Your task to perform on an android device: turn off location history Image 0: 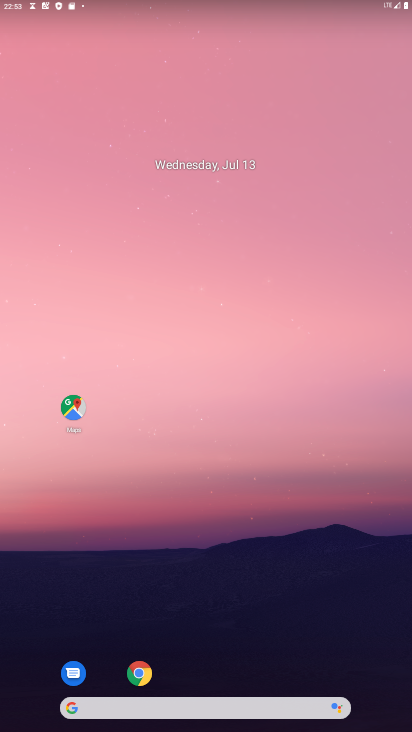
Step 0: drag from (213, 562) to (261, 168)
Your task to perform on an android device: turn off location history Image 1: 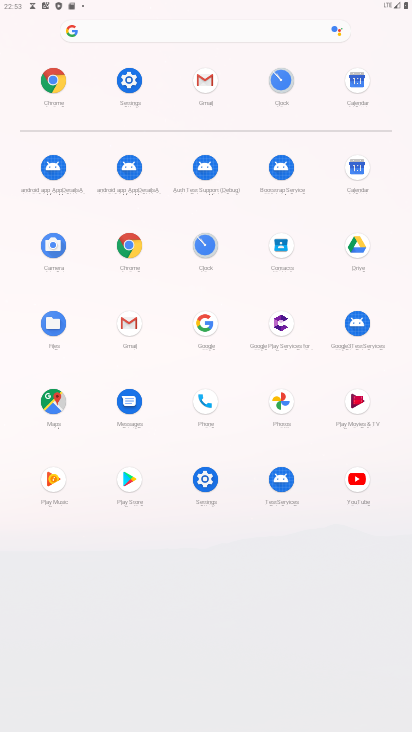
Step 1: click (200, 466)
Your task to perform on an android device: turn off location history Image 2: 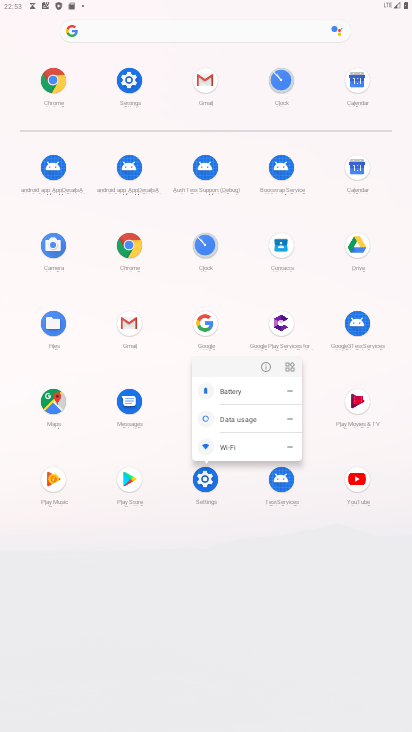
Step 2: click (265, 364)
Your task to perform on an android device: turn off location history Image 3: 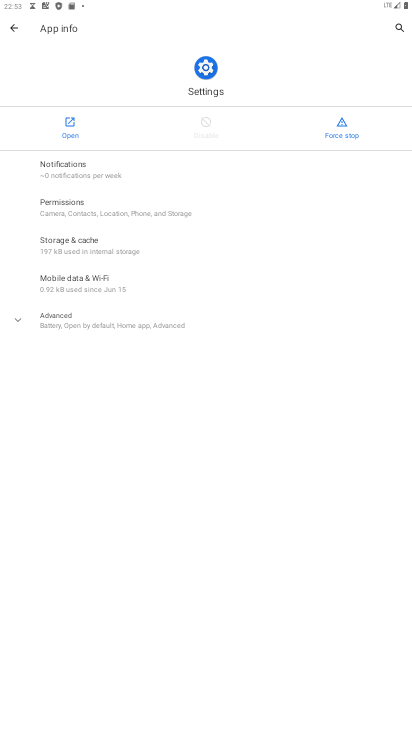
Step 3: click (70, 129)
Your task to perform on an android device: turn off location history Image 4: 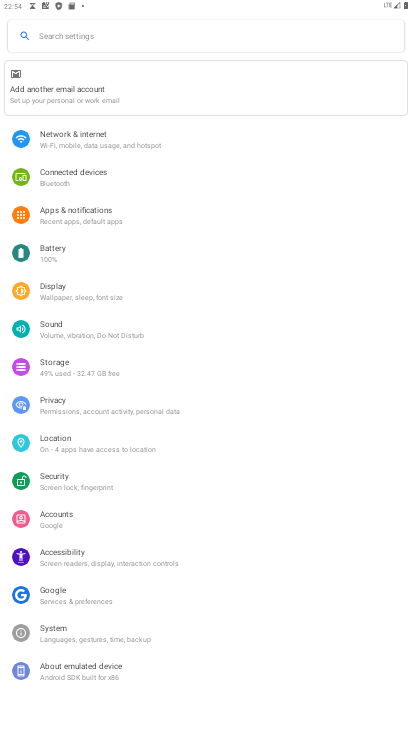
Step 4: click (239, 291)
Your task to perform on an android device: turn off location history Image 5: 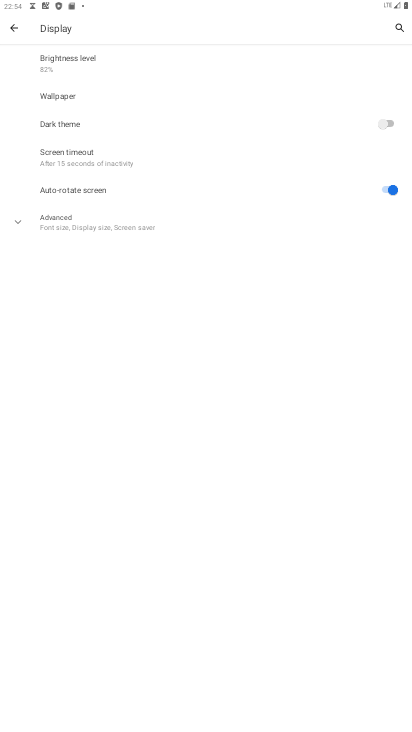
Step 5: click (17, 31)
Your task to perform on an android device: turn off location history Image 6: 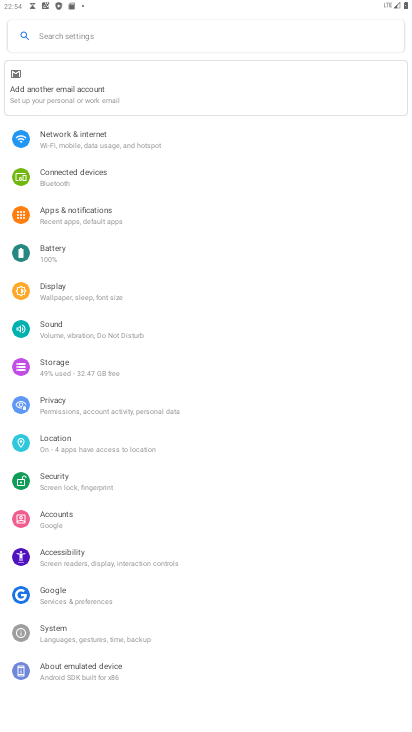
Step 6: click (76, 440)
Your task to perform on an android device: turn off location history Image 7: 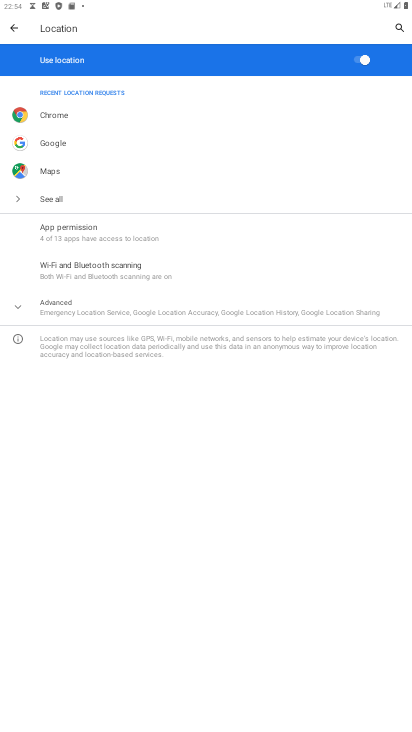
Step 7: click (93, 308)
Your task to perform on an android device: turn off location history Image 8: 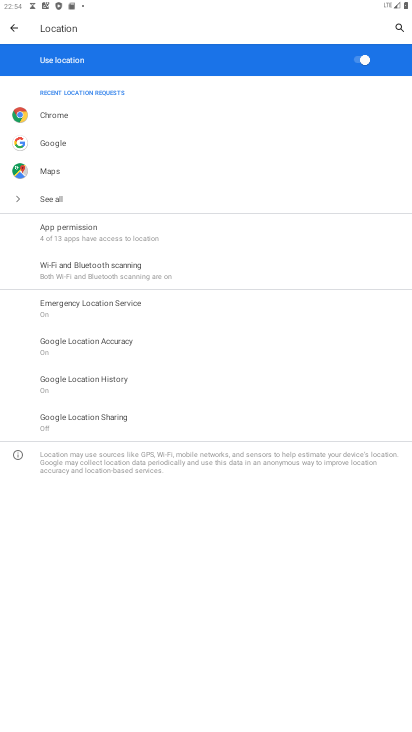
Step 8: click (123, 378)
Your task to perform on an android device: turn off location history Image 9: 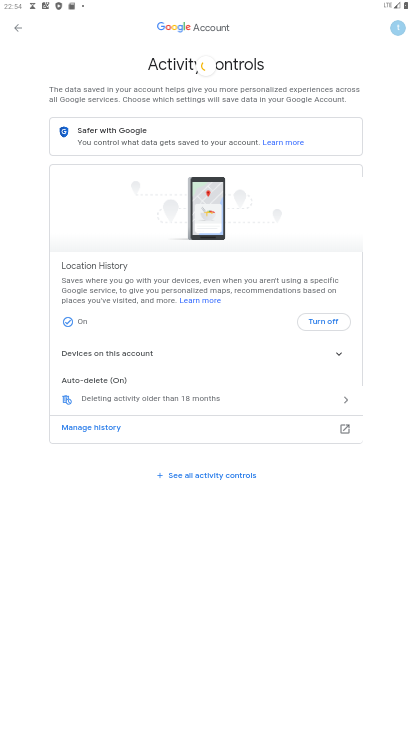
Step 9: drag from (231, 221) to (243, 368)
Your task to perform on an android device: turn off location history Image 10: 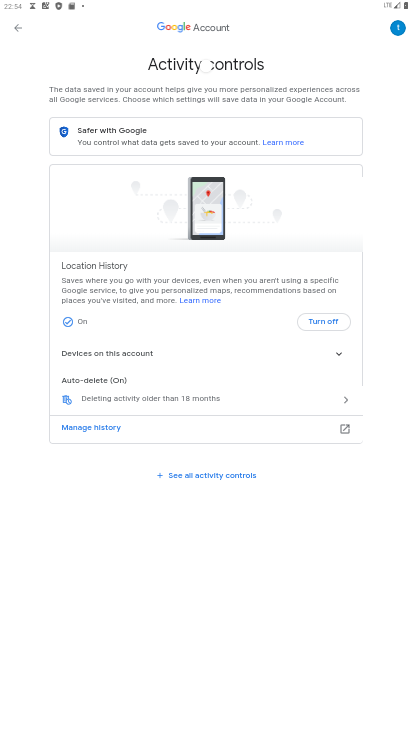
Step 10: click (319, 320)
Your task to perform on an android device: turn off location history Image 11: 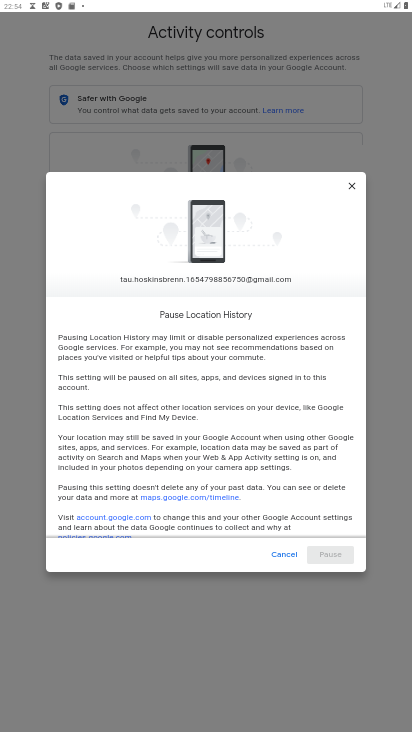
Step 11: drag from (234, 497) to (268, 119)
Your task to perform on an android device: turn off location history Image 12: 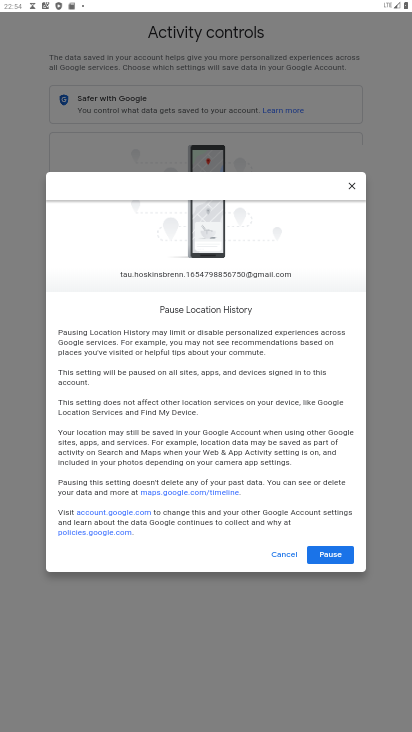
Step 12: click (333, 554)
Your task to perform on an android device: turn off location history Image 13: 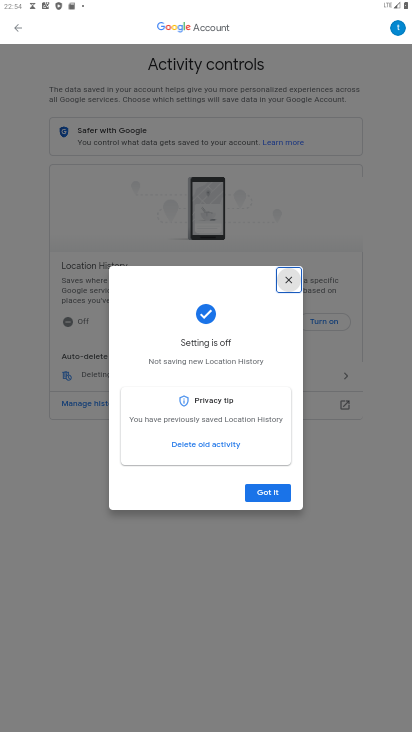
Step 13: click (260, 499)
Your task to perform on an android device: turn off location history Image 14: 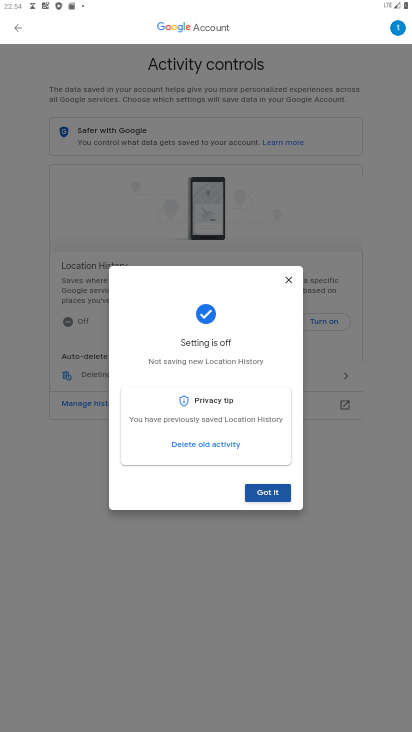
Step 14: task complete